Your task to perform on an android device: Open Chrome and go to settings Image 0: 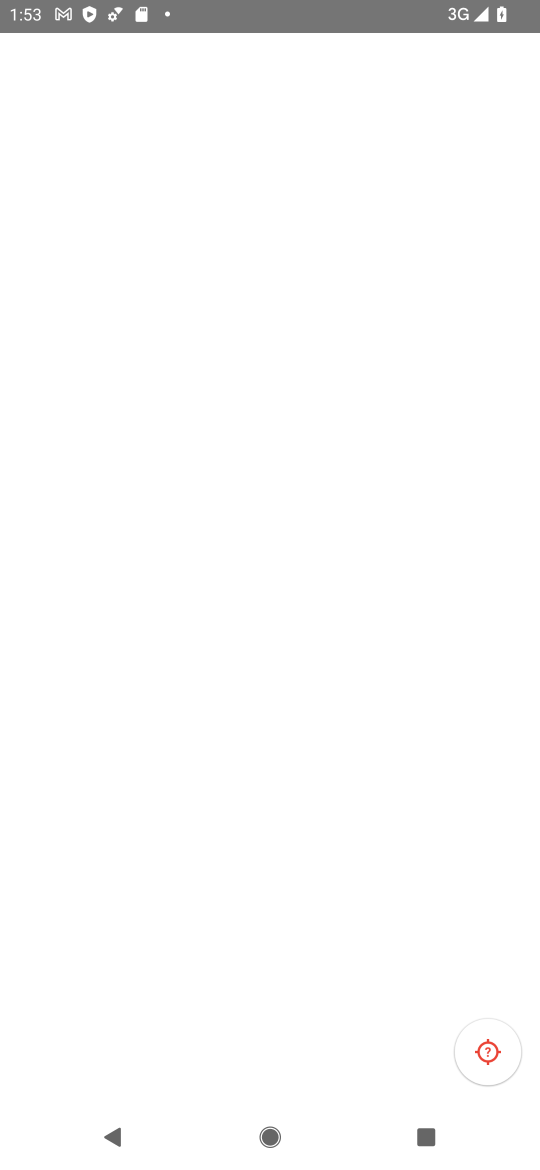
Step 0: press home button
Your task to perform on an android device: Open Chrome and go to settings Image 1: 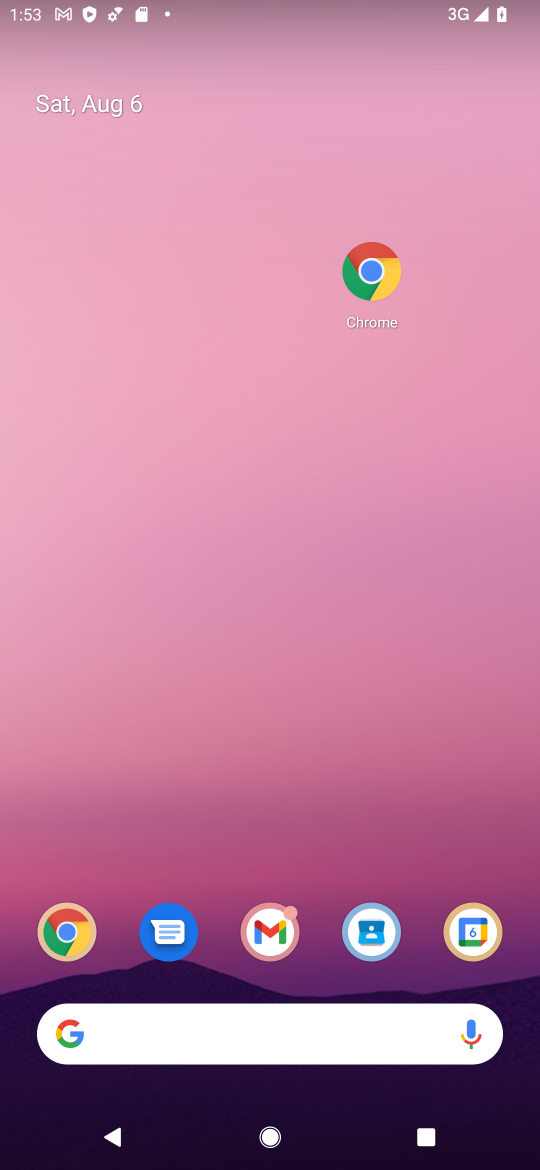
Step 1: drag from (327, 916) to (317, 96)
Your task to perform on an android device: Open Chrome and go to settings Image 2: 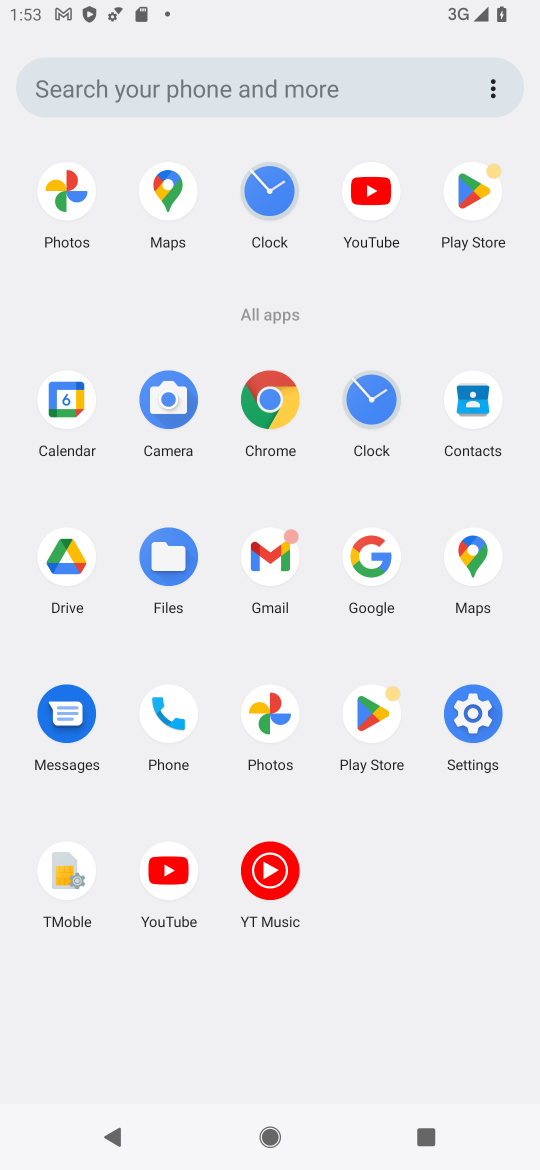
Step 2: click (280, 394)
Your task to perform on an android device: Open Chrome and go to settings Image 3: 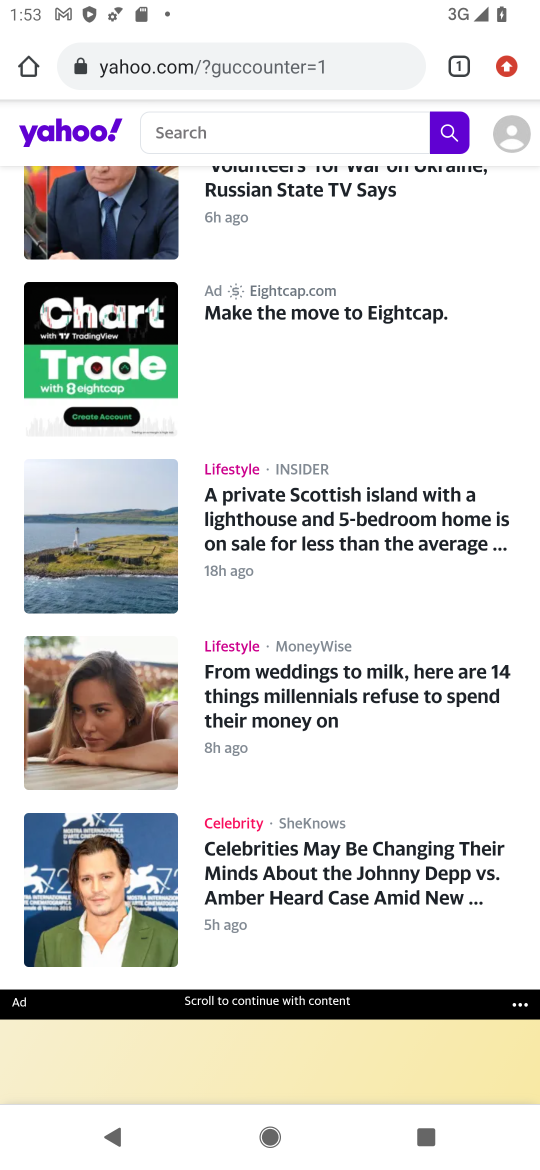
Step 3: task complete